Your task to perform on an android device: install app "Paramount+ | Peak Streaming" Image 0: 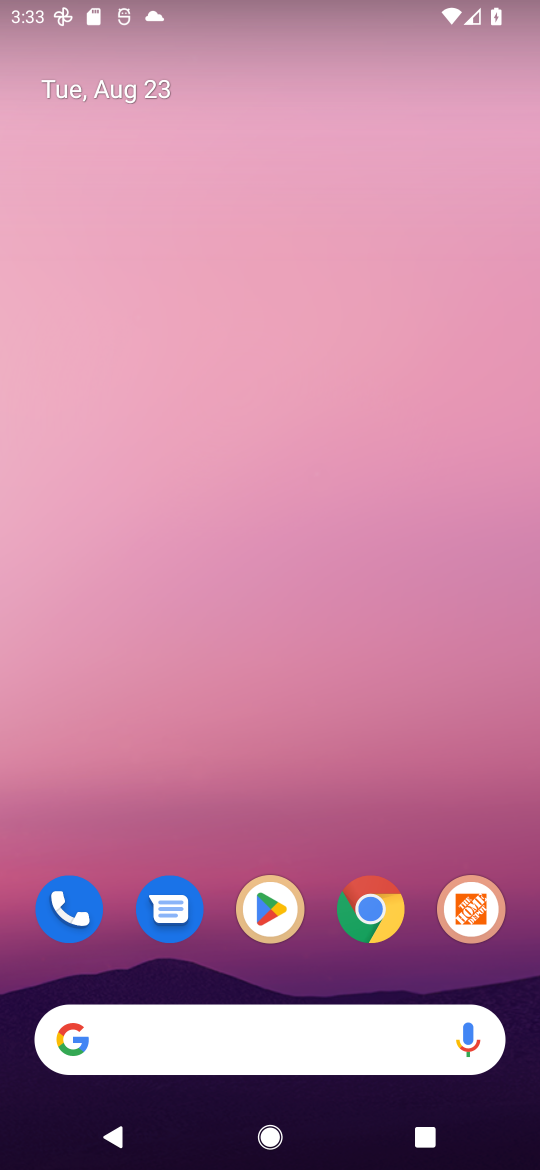
Step 0: press home button
Your task to perform on an android device: install app "Paramount+ | Peak Streaming" Image 1: 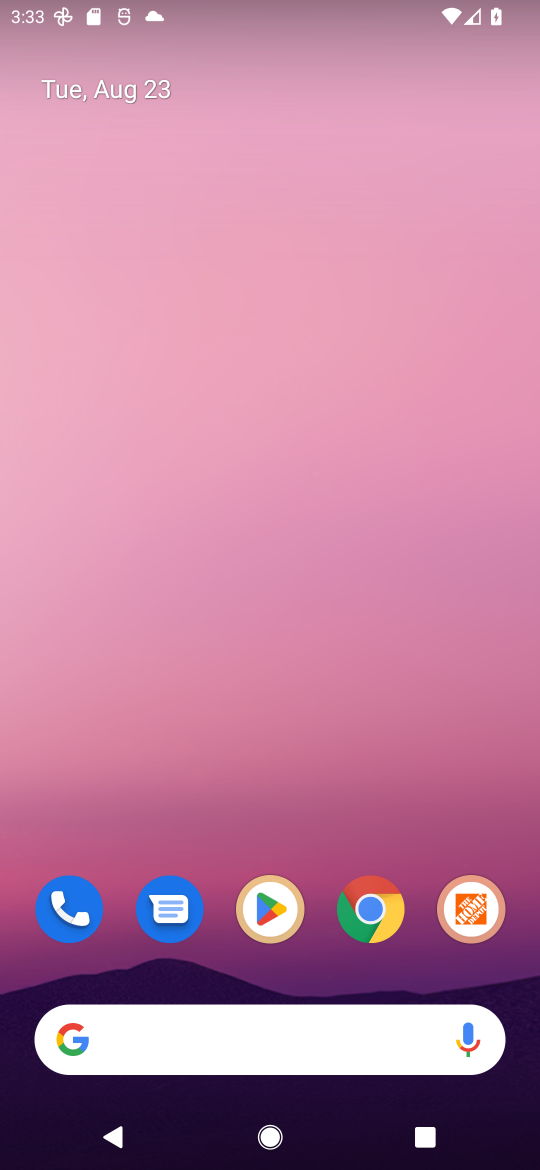
Step 1: click (263, 904)
Your task to perform on an android device: install app "Paramount+ | Peak Streaming" Image 2: 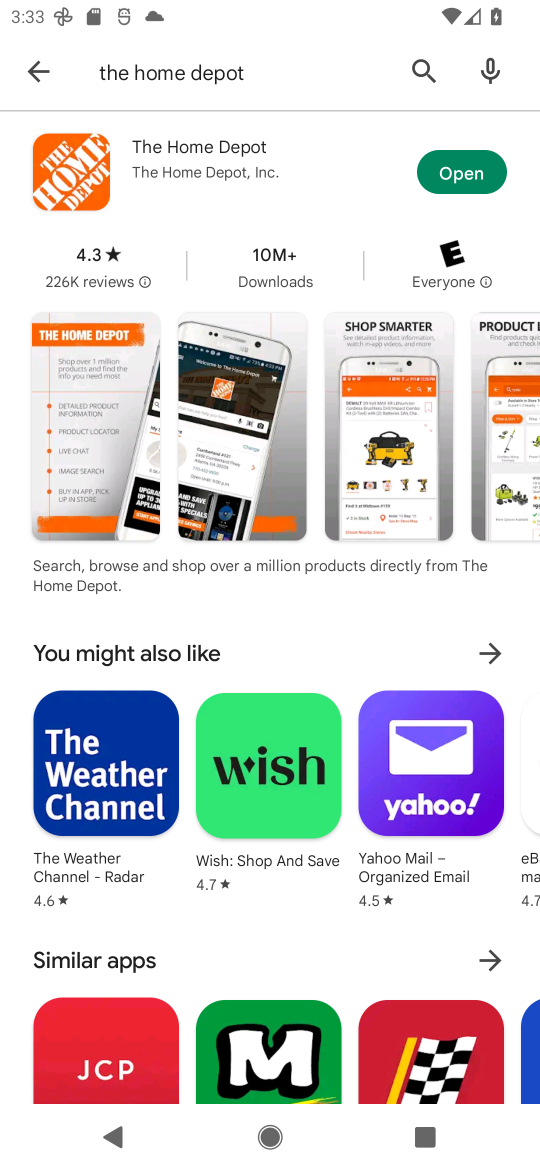
Step 2: click (411, 59)
Your task to perform on an android device: install app "Paramount+ | Peak Streaming" Image 3: 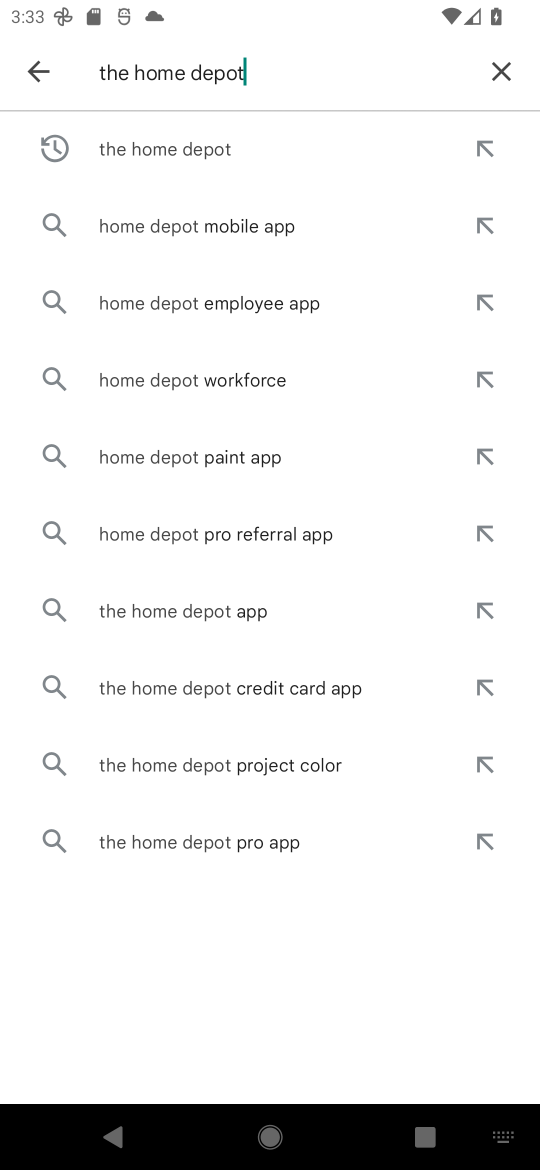
Step 3: click (498, 76)
Your task to perform on an android device: install app "Paramount+ | Peak Streaming" Image 4: 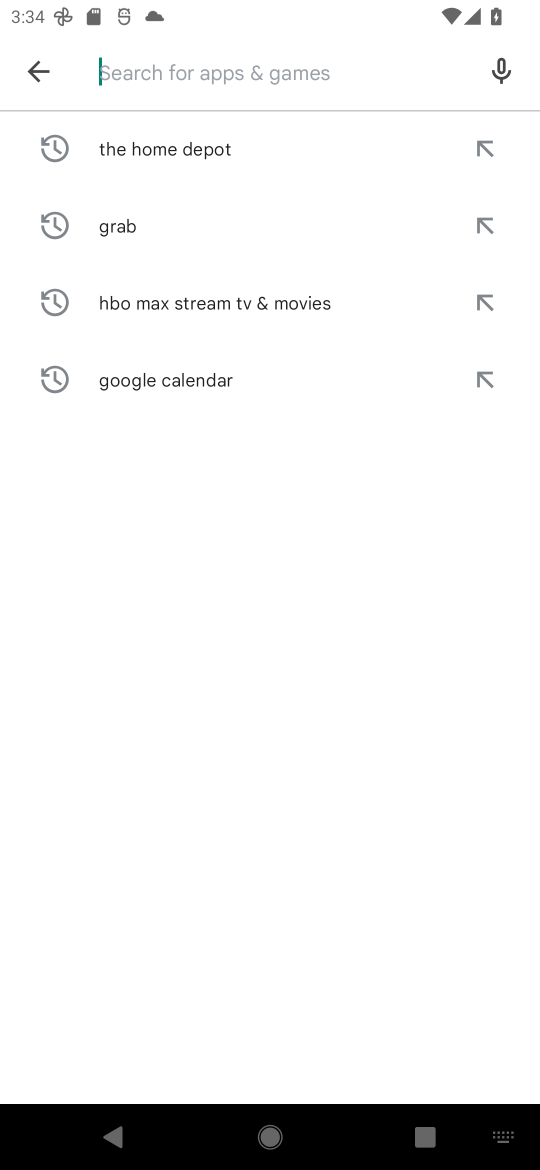
Step 4: type "Paramount+ | Peak Streaming"
Your task to perform on an android device: install app "Paramount+ | Peak Streaming" Image 5: 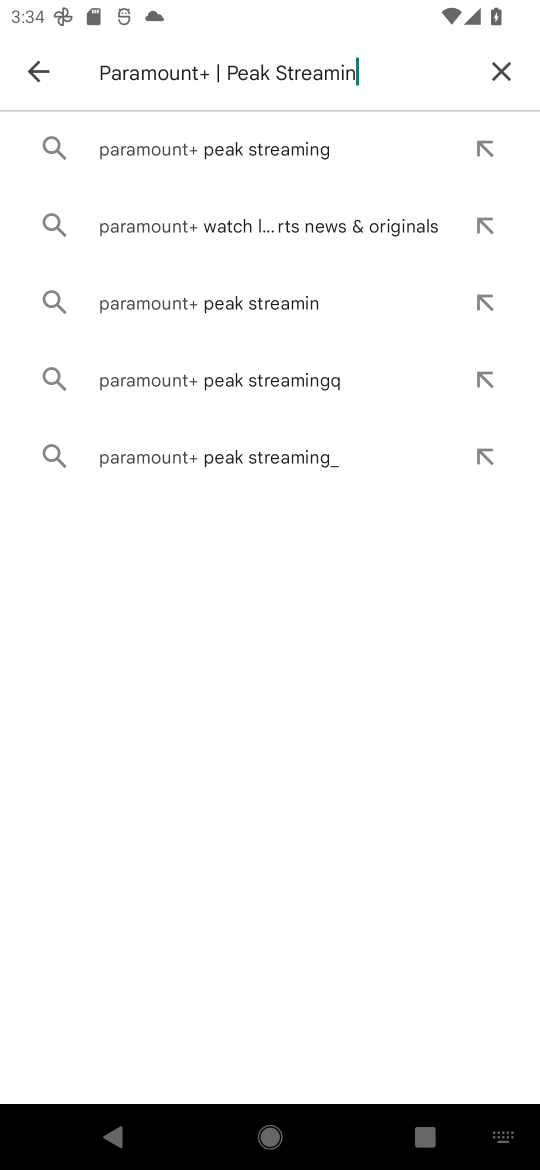
Step 5: type ""
Your task to perform on an android device: install app "Paramount+ | Peak Streaming" Image 6: 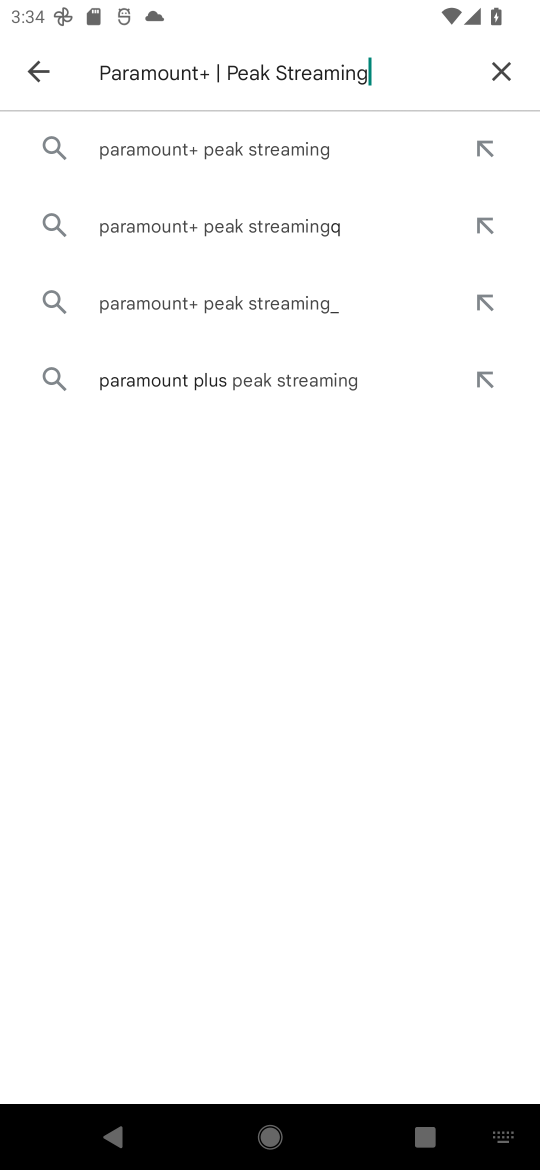
Step 6: click (282, 150)
Your task to perform on an android device: install app "Paramount+ | Peak Streaming" Image 7: 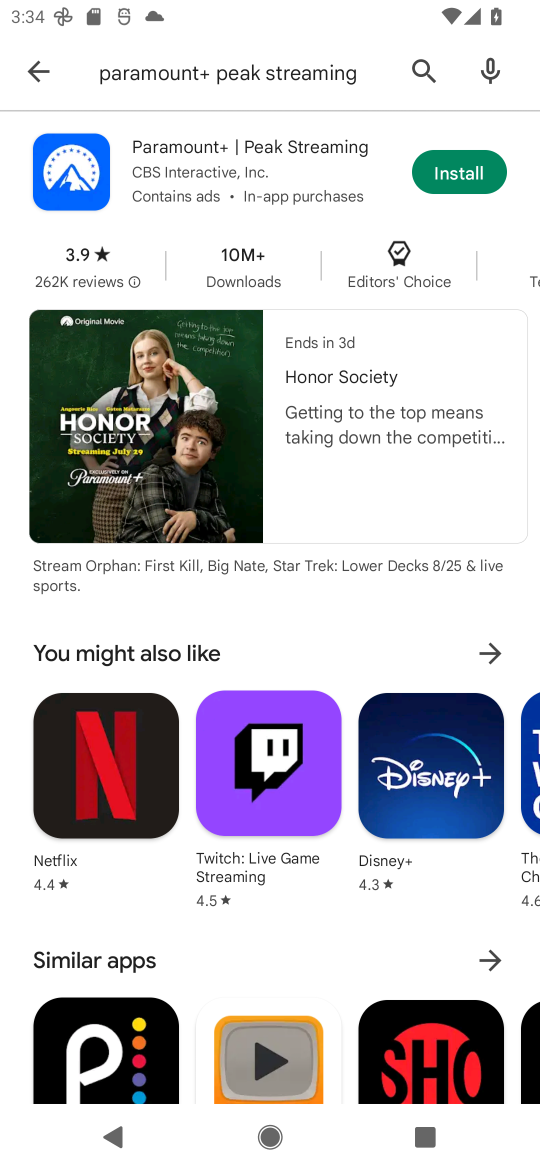
Step 7: click (453, 168)
Your task to perform on an android device: install app "Paramount+ | Peak Streaming" Image 8: 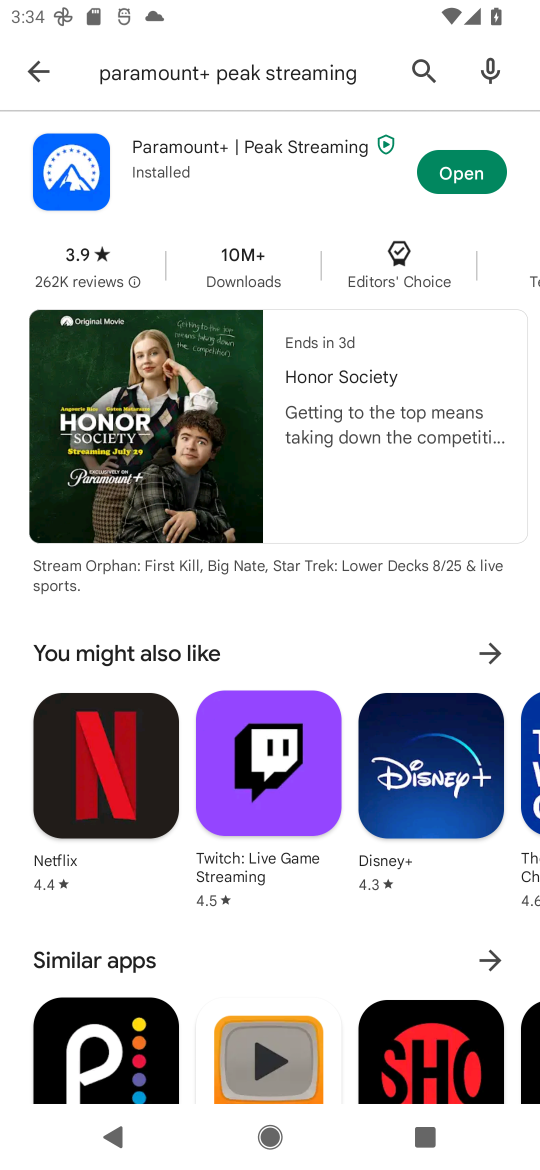
Step 8: click (459, 171)
Your task to perform on an android device: install app "Paramount+ | Peak Streaming" Image 9: 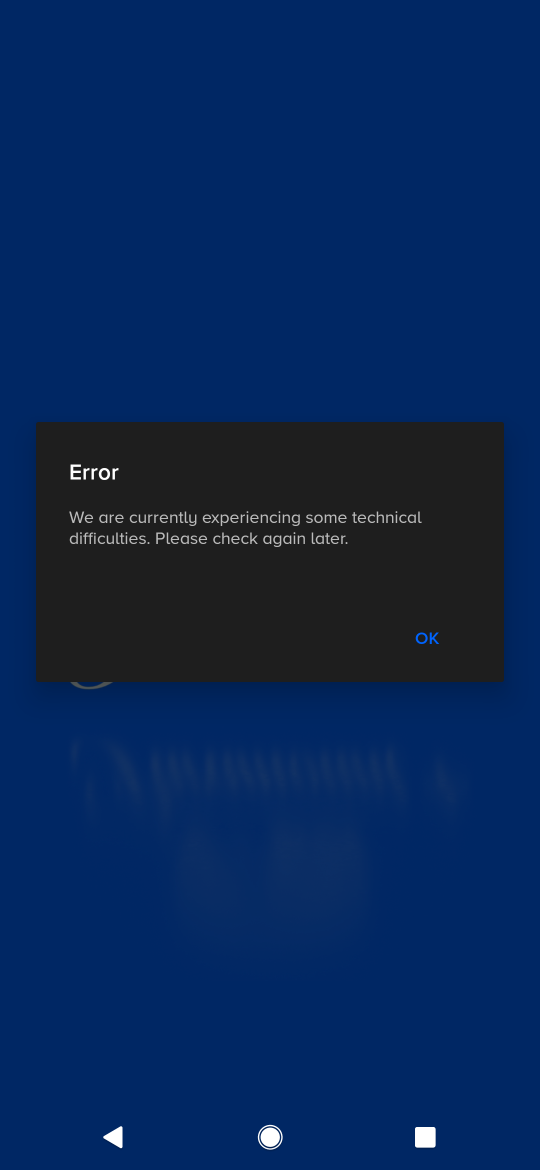
Step 9: click (430, 640)
Your task to perform on an android device: install app "Paramount+ | Peak Streaming" Image 10: 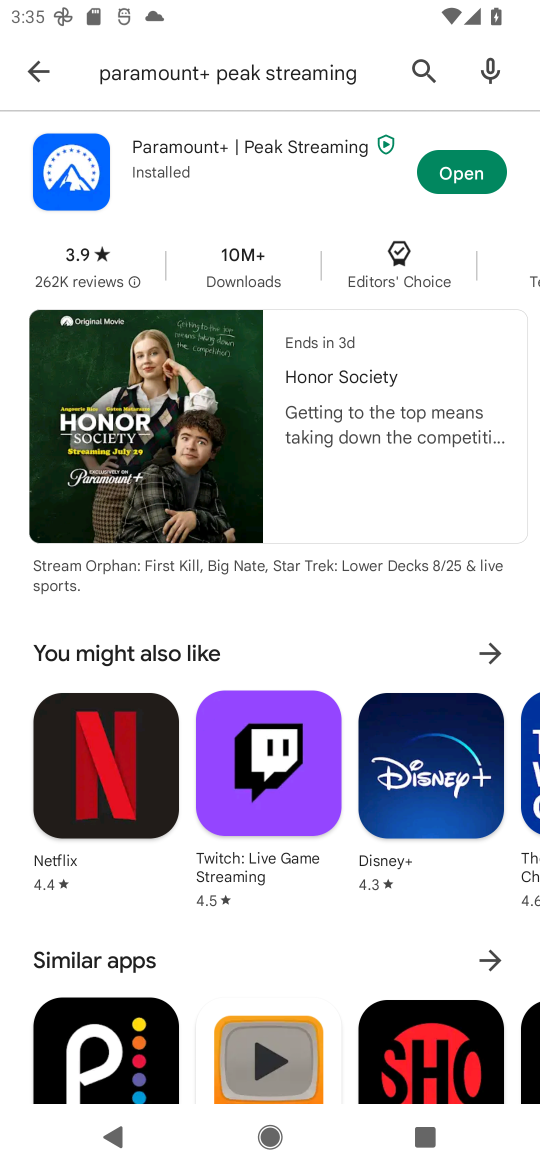
Step 10: task complete